Your task to perform on an android device: open device folders in google photos Image 0: 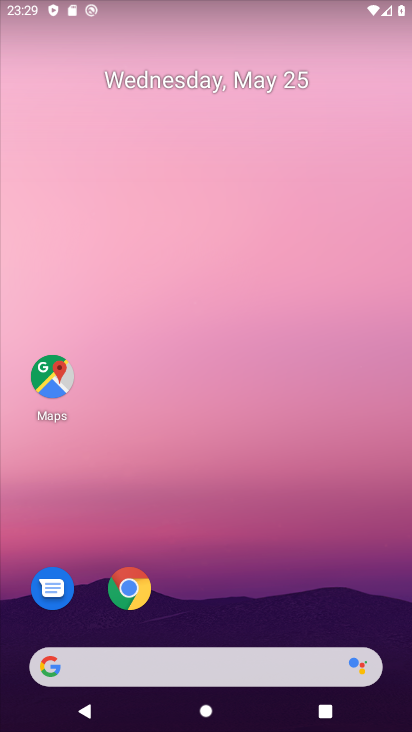
Step 0: drag from (240, 537) to (125, 160)
Your task to perform on an android device: open device folders in google photos Image 1: 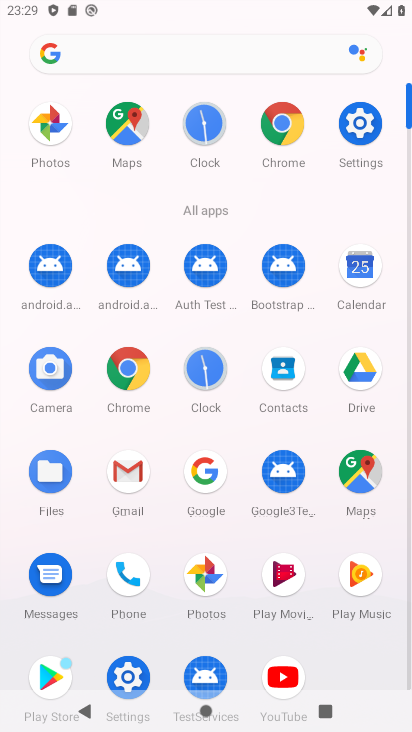
Step 1: click (42, 133)
Your task to perform on an android device: open device folders in google photos Image 2: 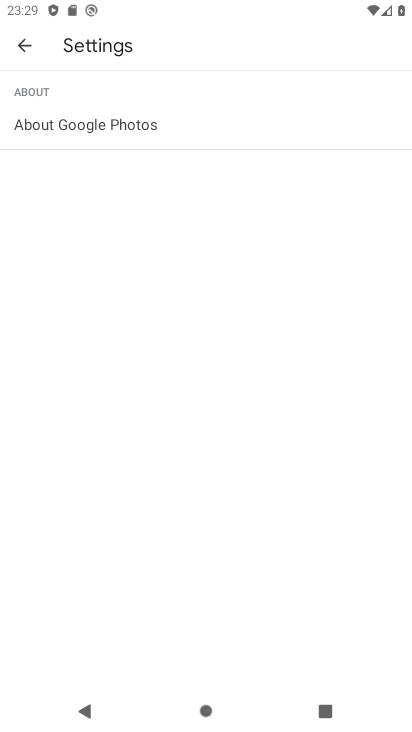
Step 2: click (20, 48)
Your task to perform on an android device: open device folders in google photos Image 3: 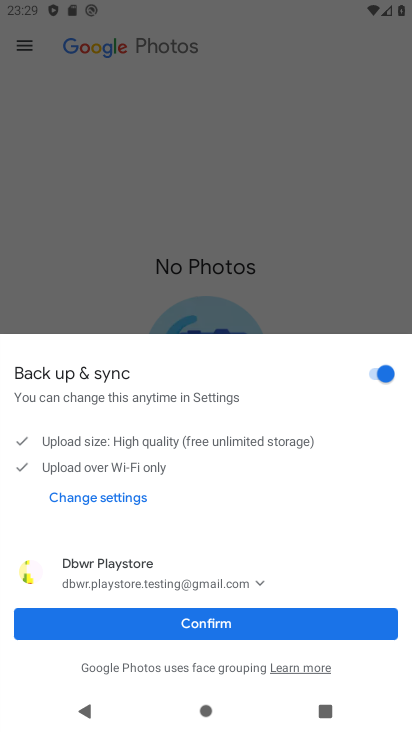
Step 3: click (230, 622)
Your task to perform on an android device: open device folders in google photos Image 4: 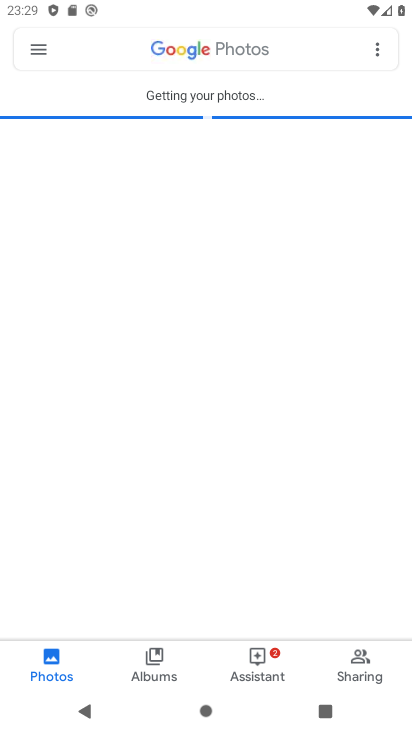
Step 4: click (36, 52)
Your task to perform on an android device: open device folders in google photos Image 5: 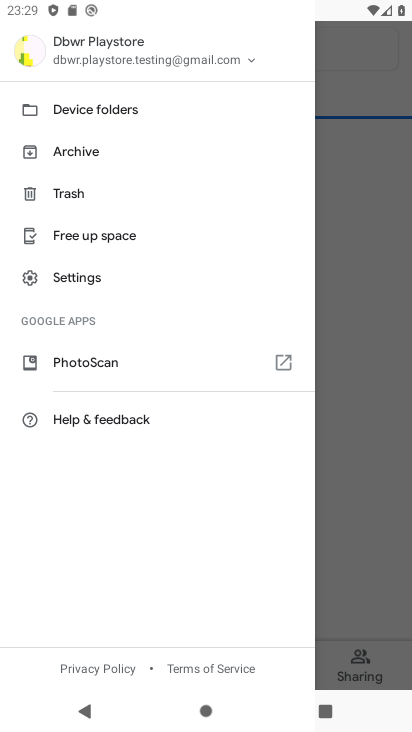
Step 5: click (73, 109)
Your task to perform on an android device: open device folders in google photos Image 6: 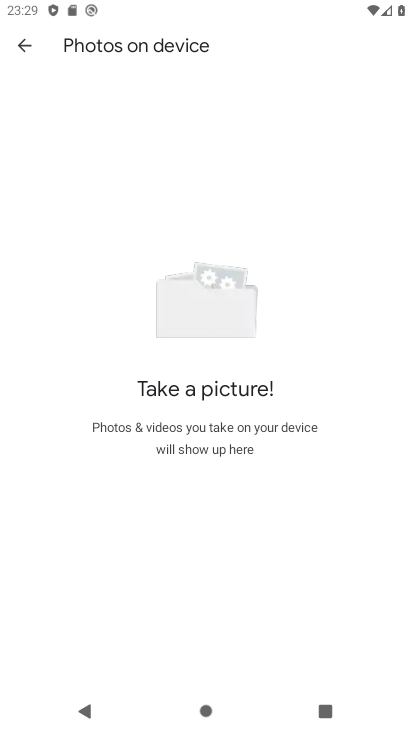
Step 6: task complete